Your task to perform on an android device: open chrome and create a bookmark for the current page Image 0: 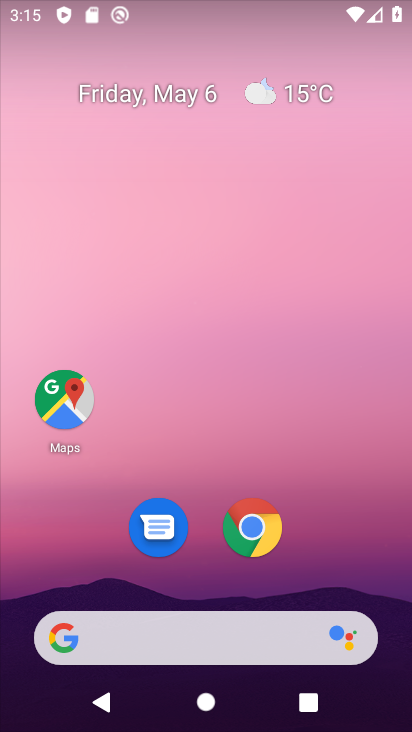
Step 0: click (247, 544)
Your task to perform on an android device: open chrome and create a bookmark for the current page Image 1: 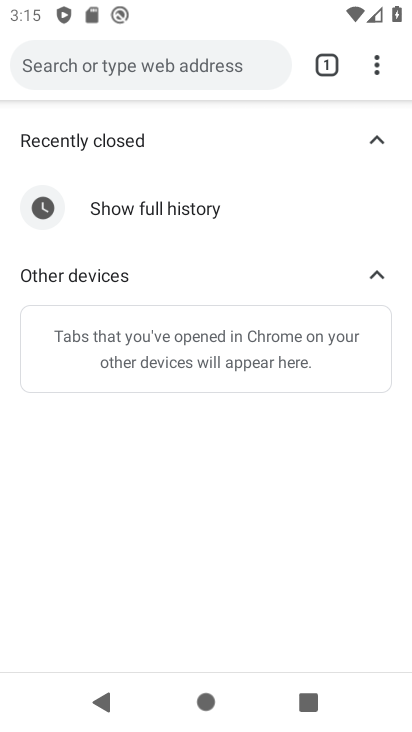
Step 1: click (369, 68)
Your task to perform on an android device: open chrome and create a bookmark for the current page Image 2: 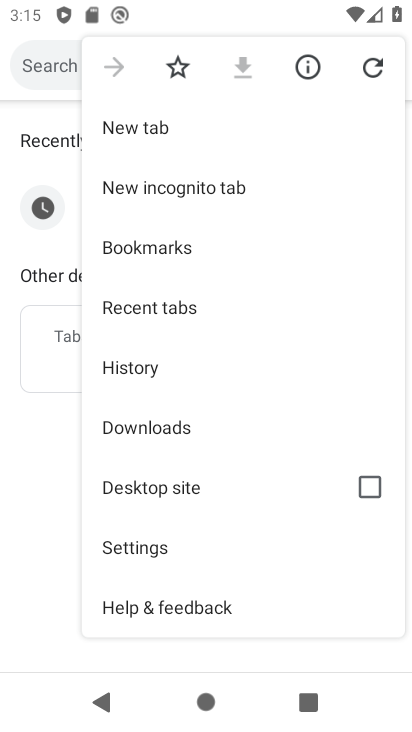
Step 2: press back button
Your task to perform on an android device: open chrome and create a bookmark for the current page Image 3: 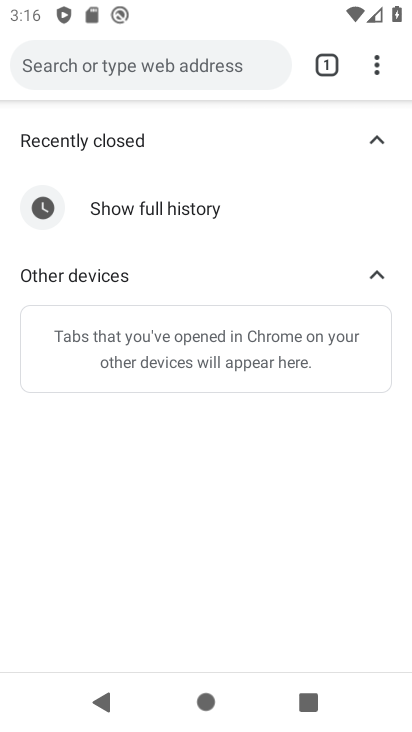
Step 3: click (376, 65)
Your task to perform on an android device: open chrome and create a bookmark for the current page Image 4: 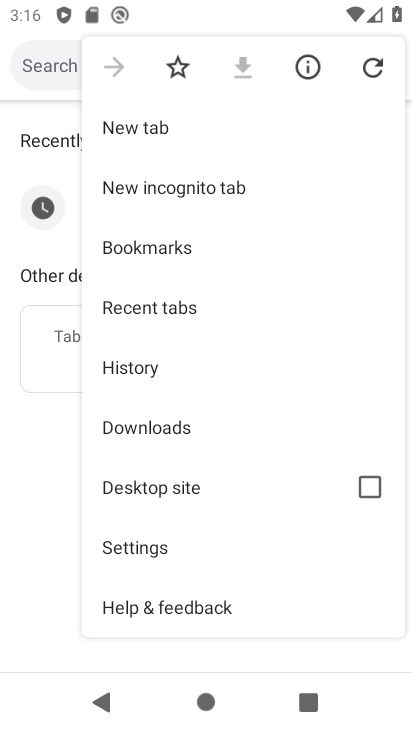
Step 4: click (175, 69)
Your task to perform on an android device: open chrome and create a bookmark for the current page Image 5: 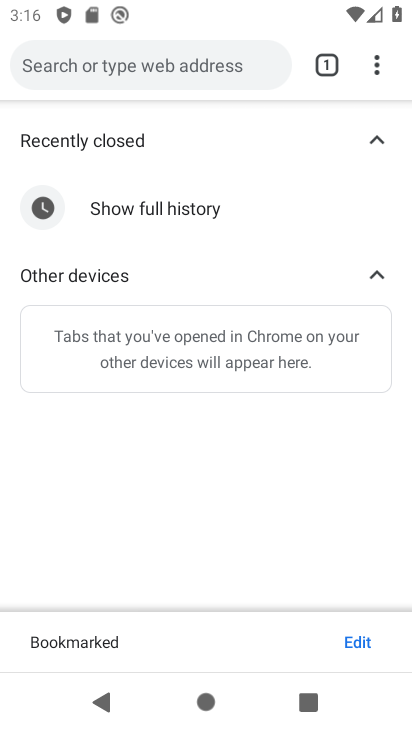
Step 5: task complete